Your task to perform on an android device: Show me the alarms in the clock app Image 0: 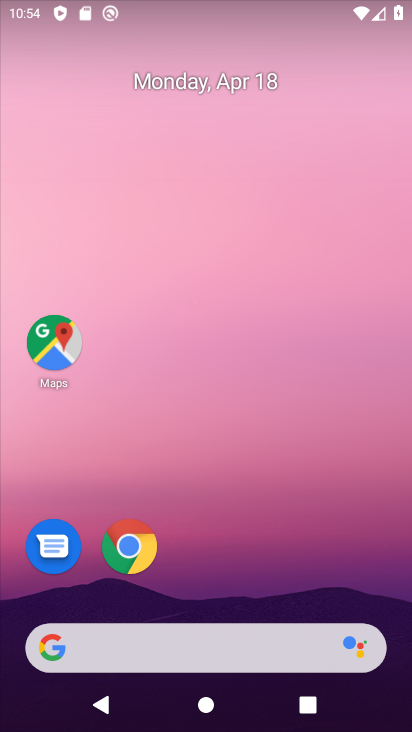
Step 0: drag from (383, 588) to (395, 88)
Your task to perform on an android device: Show me the alarms in the clock app Image 1: 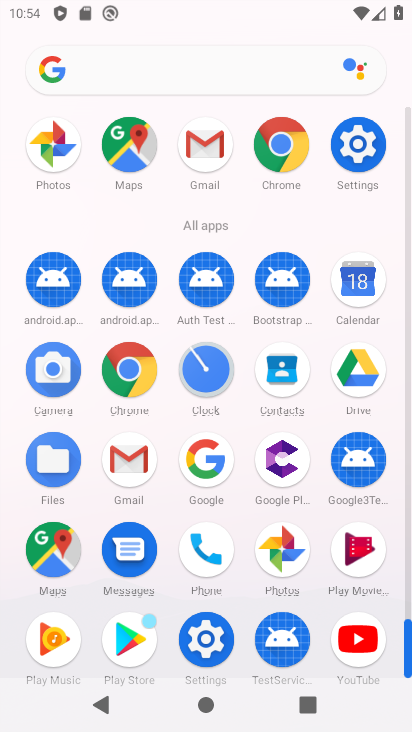
Step 1: click (199, 374)
Your task to perform on an android device: Show me the alarms in the clock app Image 2: 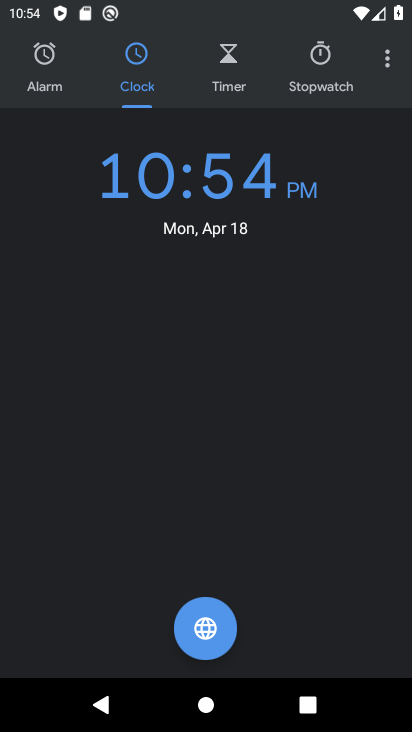
Step 2: click (41, 68)
Your task to perform on an android device: Show me the alarms in the clock app Image 3: 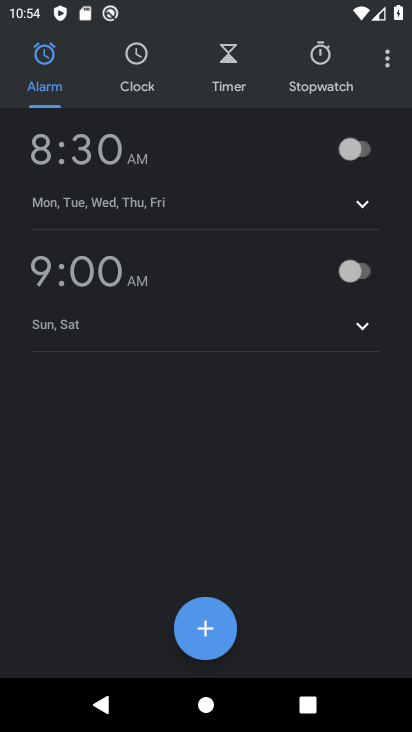
Step 3: task complete